Your task to perform on an android device: What time is it in San Francisco? Image 0: 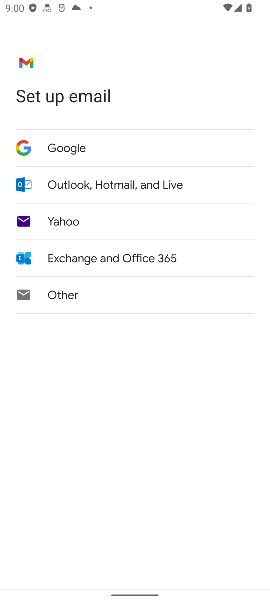
Step 0: press home button
Your task to perform on an android device: What time is it in San Francisco? Image 1: 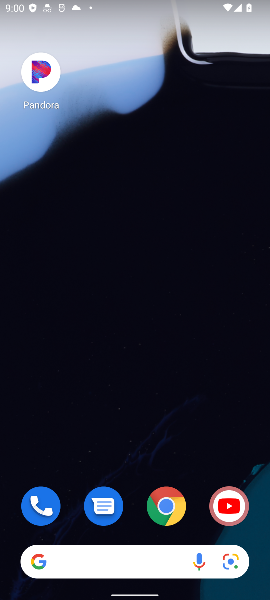
Step 1: click (163, 499)
Your task to perform on an android device: What time is it in San Francisco? Image 2: 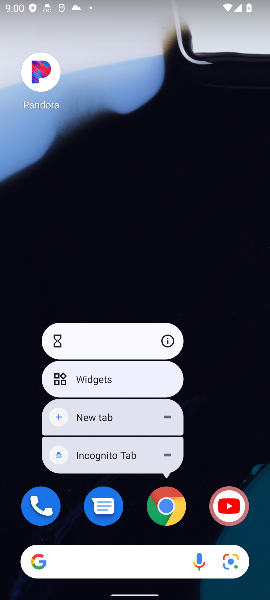
Step 2: click (162, 510)
Your task to perform on an android device: What time is it in San Francisco? Image 3: 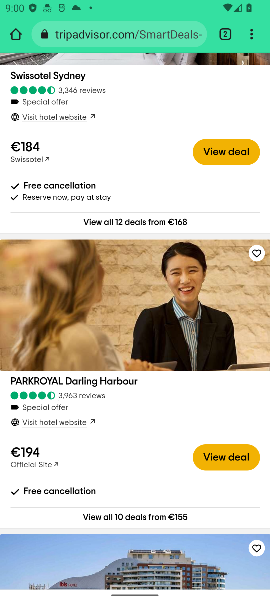
Step 3: click (141, 33)
Your task to perform on an android device: What time is it in San Francisco? Image 4: 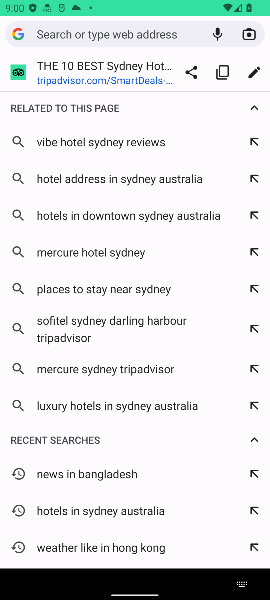
Step 4: type "What time is it in San Francisco"
Your task to perform on an android device: What time is it in San Francisco? Image 5: 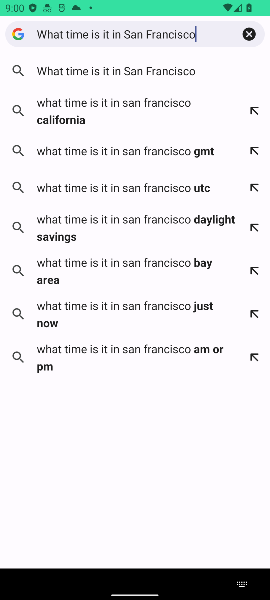
Step 5: click (121, 72)
Your task to perform on an android device: What time is it in San Francisco? Image 6: 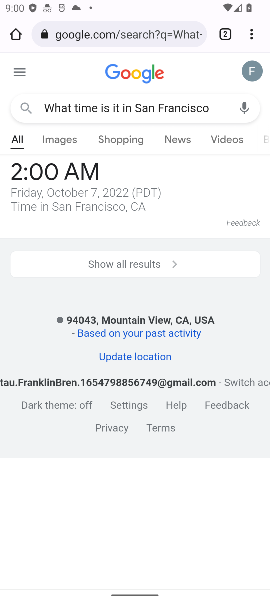
Step 6: task complete